Your task to perform on an android device: Open ESPN.com Image 0: 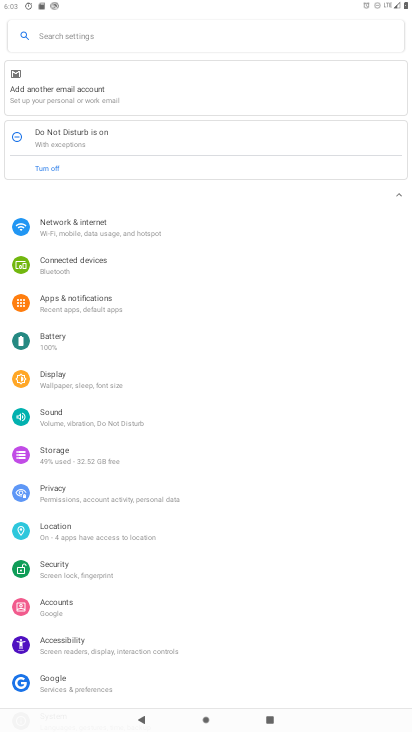
Step 0: press home button
Your task to perform on an android device: Open ESPN.com Image 1: 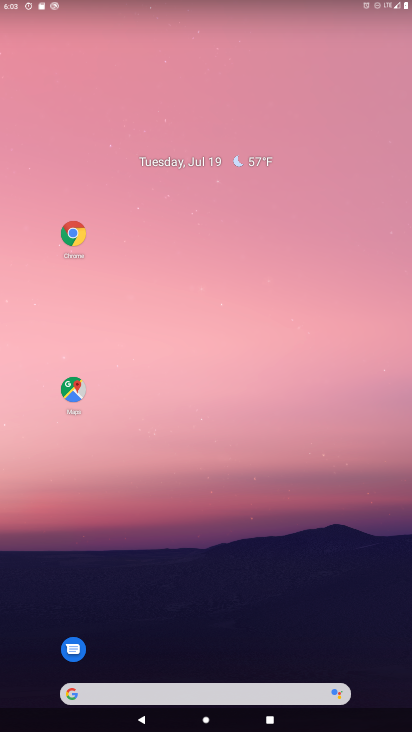
Step 1: drag from (189, 620) to (185, 585)
Your task to perform on an android device: Open ESPN.com Image 2: 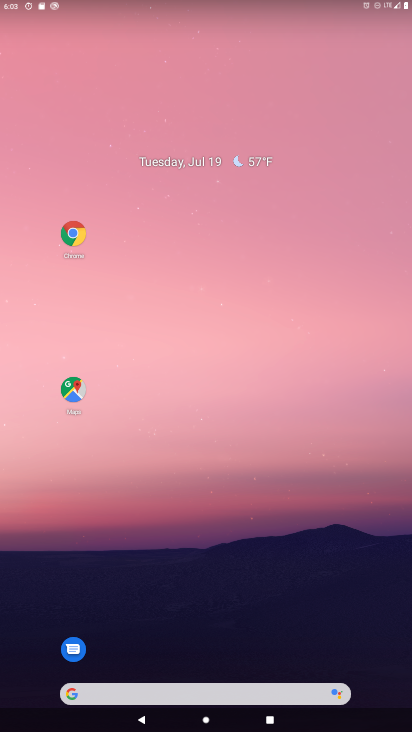
Step 2: click (67, 234)
Your task to perform on an android device: Open ESPN.com Image 3: 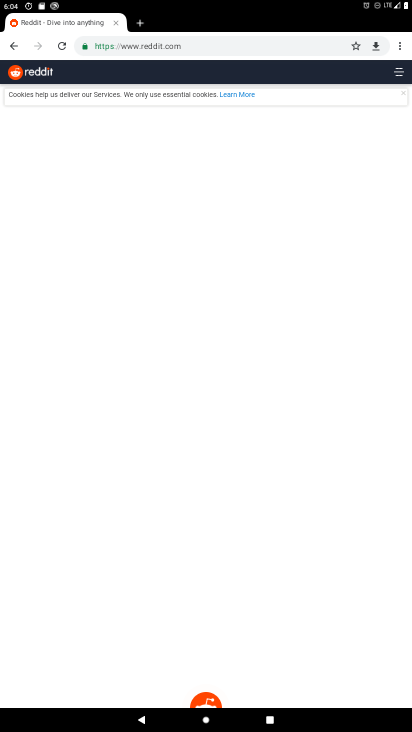
Step 3: click (11, 45)
Your task to perform on an android device: Open ESPN.com Image 4: 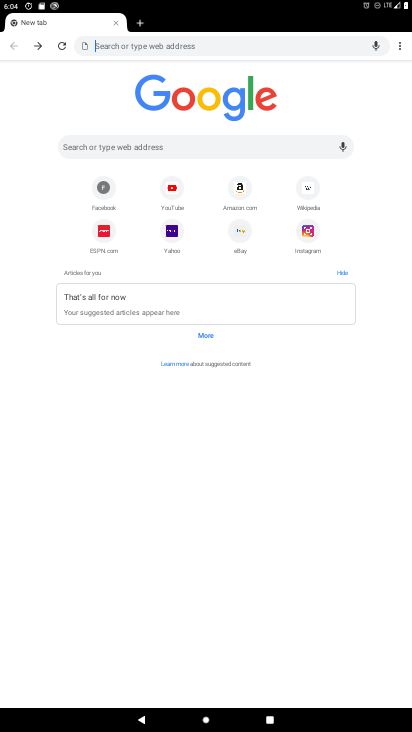
Step 4: click (100, 242)
Your task to perform on an android device: Open ESPN.com Image 5: 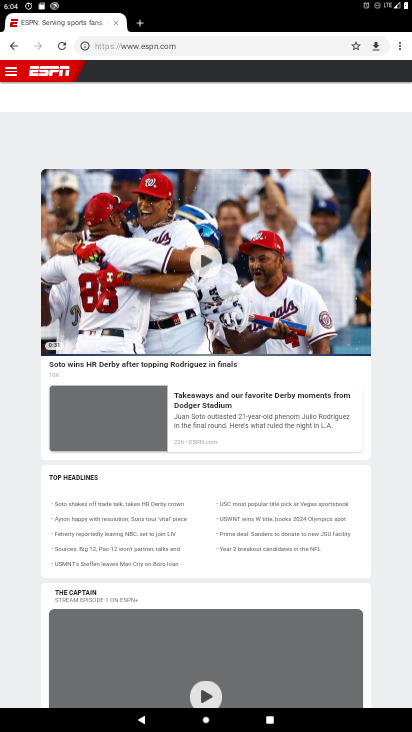
Step 5: task complete